Your task to perform on an android device: Open Google Image 0: 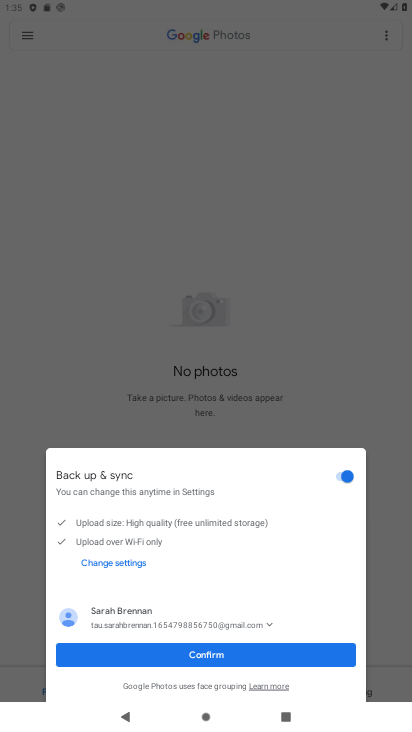
Step 0: press home button
Your task to perform on an android device: Open Google Image 1: 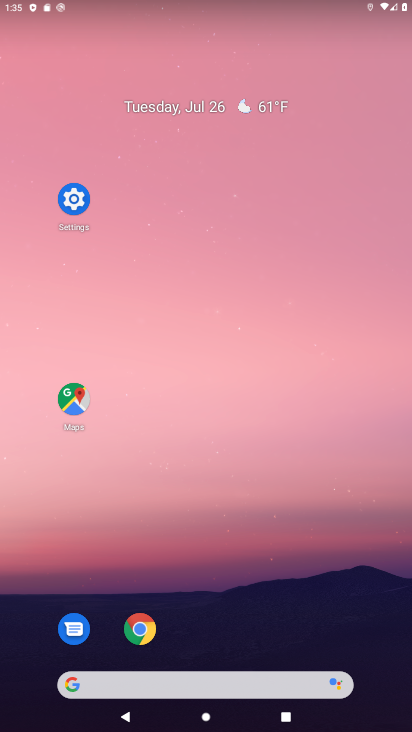
Step 1: drag from (244, 581) to (263, 146)
Your task to perform on an android device: Open Google Image 2: 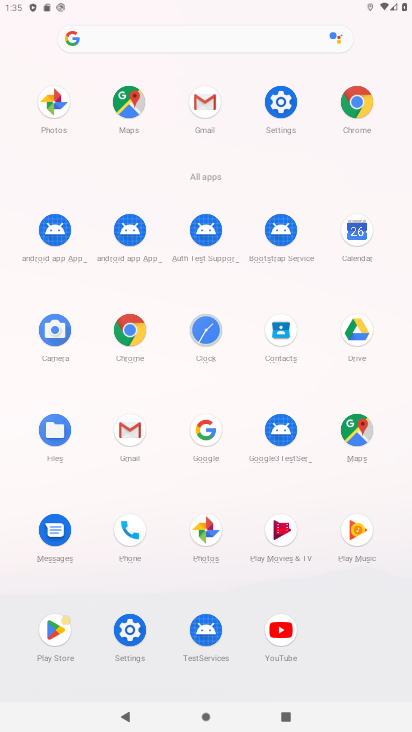
Step 2: click (202, 433)
Your task to perform on an android device: Open Google Image 3: 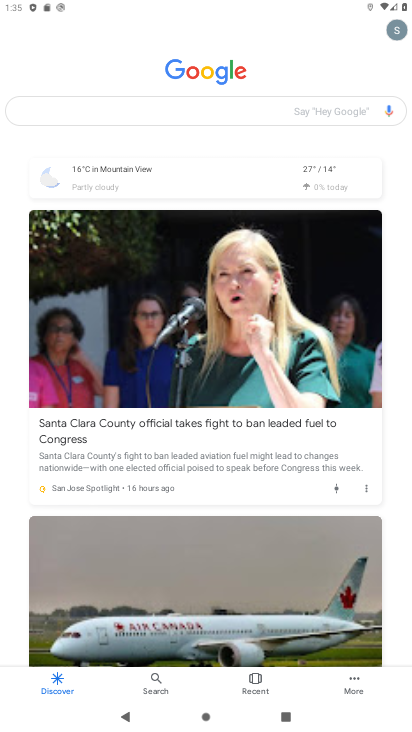
Step 3: task complete